Your task to perform on an android device: all mails in gmail Image 0: 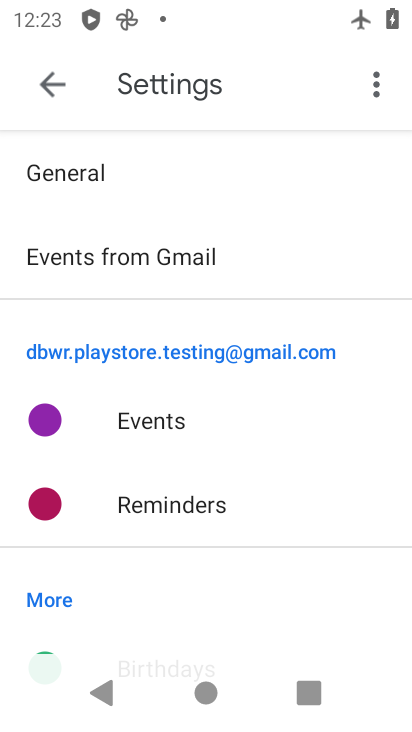
Step 0: press home button
Your task to perform on an android device: all mails in gmail Image 1: 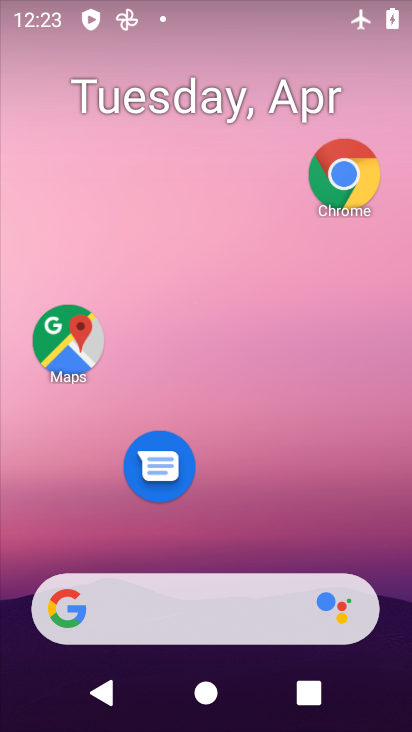
Step 1: drag from (250, 595) to (199, 12)
Your task to perform on an android device: all mails in gmail Image 2: 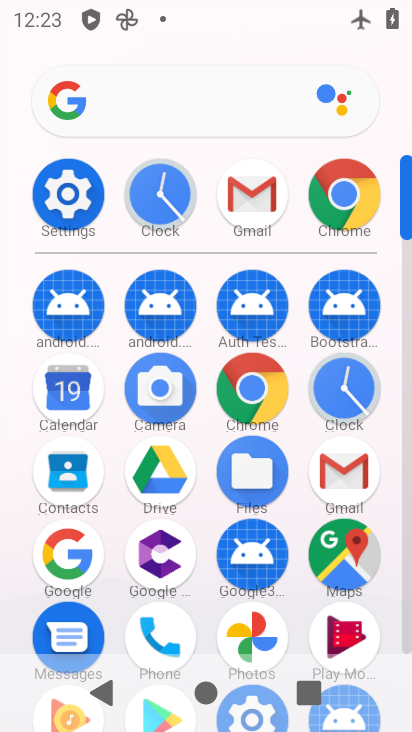
Step 2: click (369, 469)
Your task to perform on an android device: all mails in gmail Image 3: 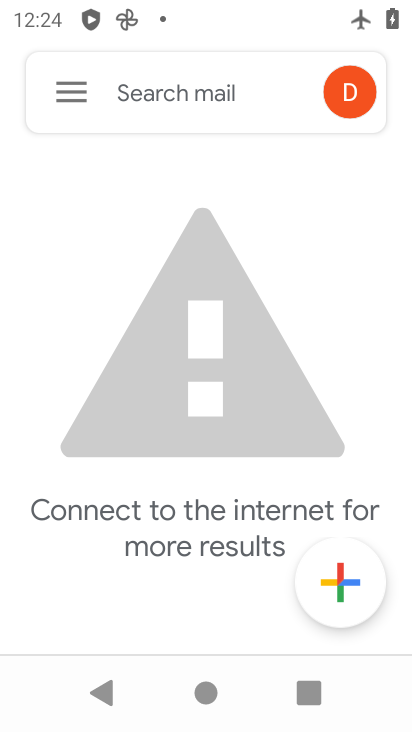
Step 3: click (76, 97)
Your task to perform on an android device: all mails in gmail Image 4: 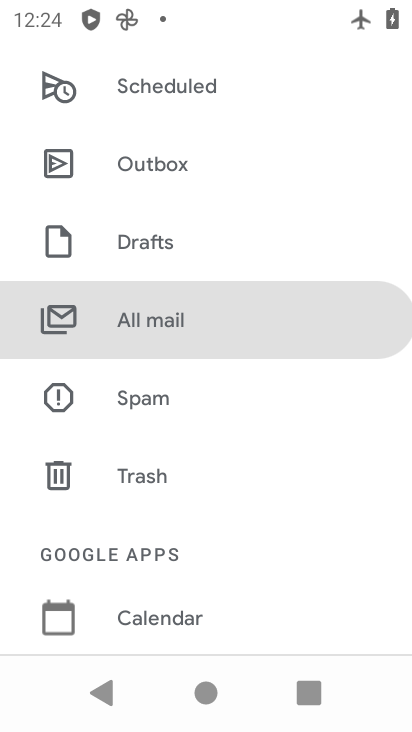
Step 4: drag from (198, 505) to (232, 1)
Your task to perform on an android device: all mails in gmail Image 5: 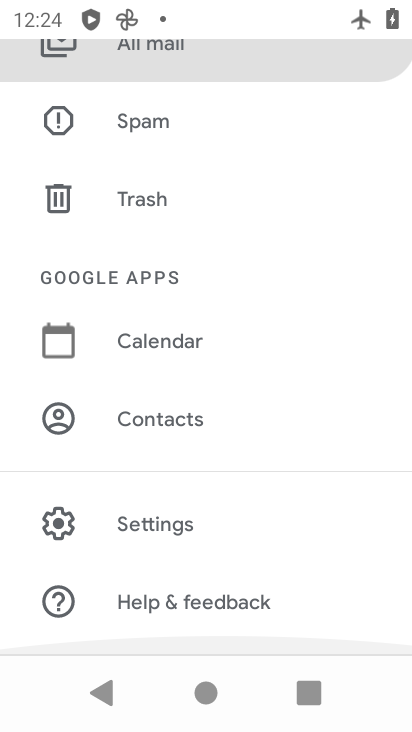
Step 5: click (187, 519)
Your task to perform on an android device: all mails in gmail Image 6: 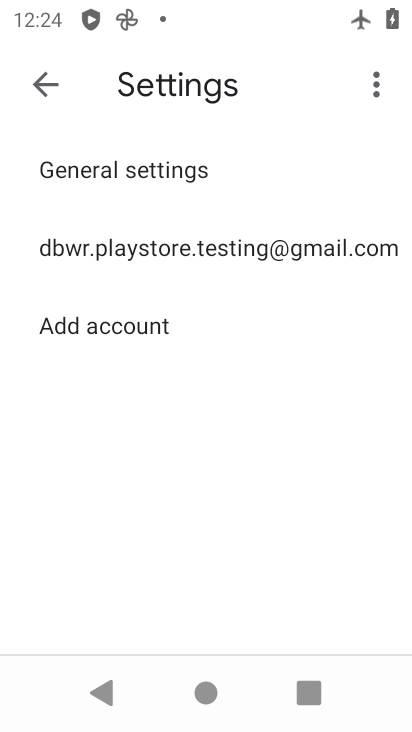
Step 6: click (57, 94)
Your task to perform on an android device: all mails in gmail Image 7: 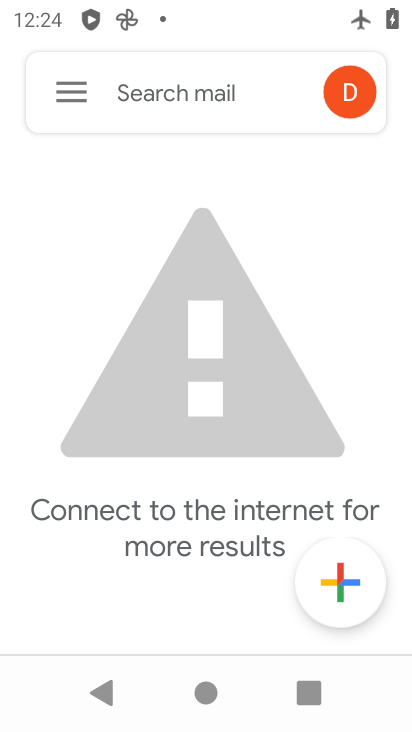
Step 7: click (63, 103)
Your task to perform on an android device: all mails in gmail Image 8: 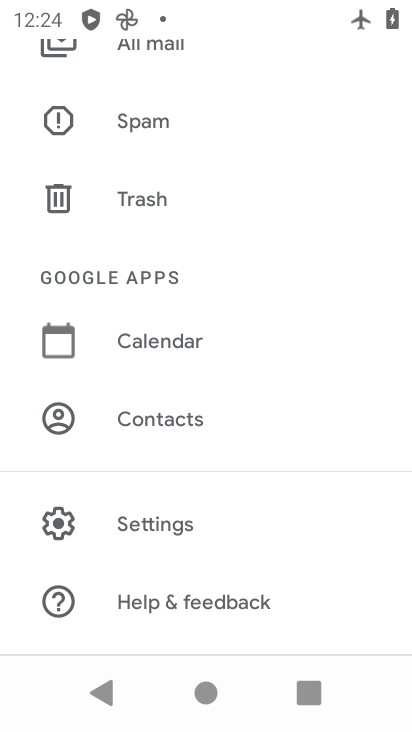
Step 8: drag from (234, 474) to (234, 638)
Your task to perform on an android device: all mails in gmail Image 9: 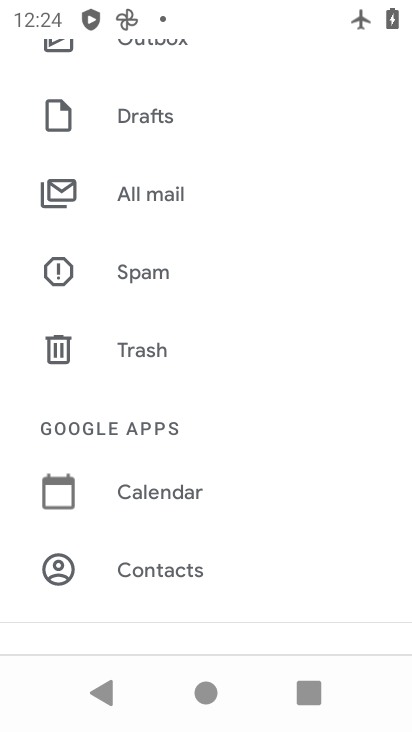
Step 9: click (191, 199)
Your task to perform on an android device: all mails in gmail Image 10: 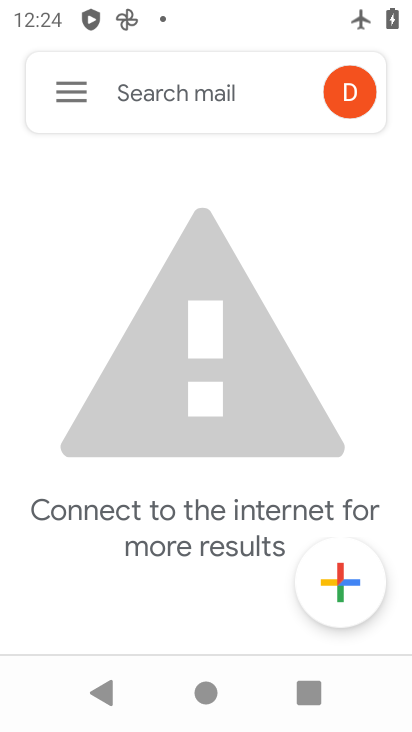
Step 10: task complete